Your task to perform on an android device: open wifi settings Image 0: 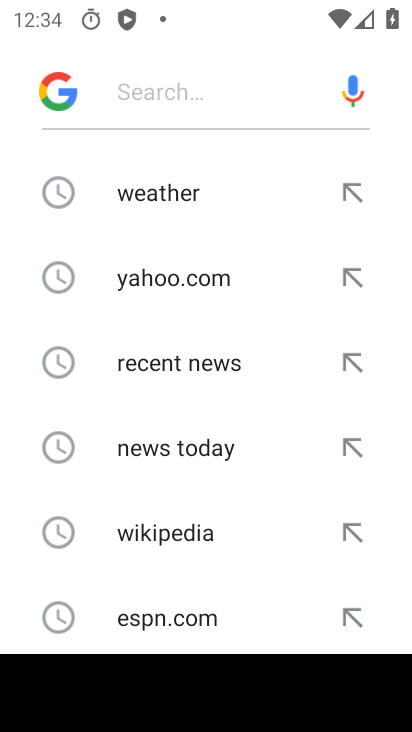
Step 0: press home button
Your task to perform on an android device: open wifi settings Image 1: 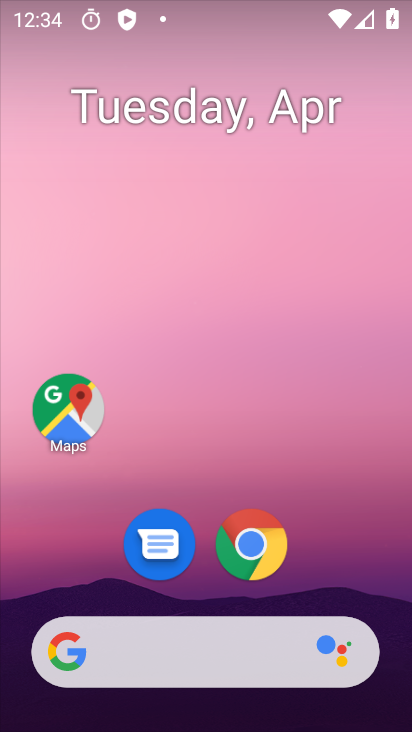
Step 1: drag from (369, 567) to (354, 52)
Your task to perform on an android device: open wifi settings Image 2: 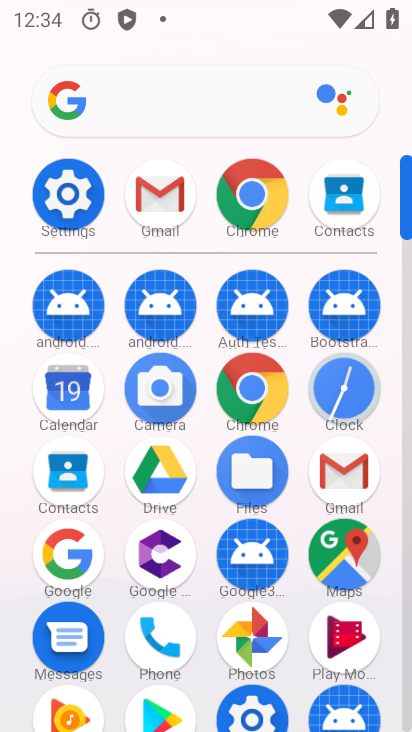
Step 2: click (65, 193)
Your task to perform on an android device: open wifi settings Image 3: 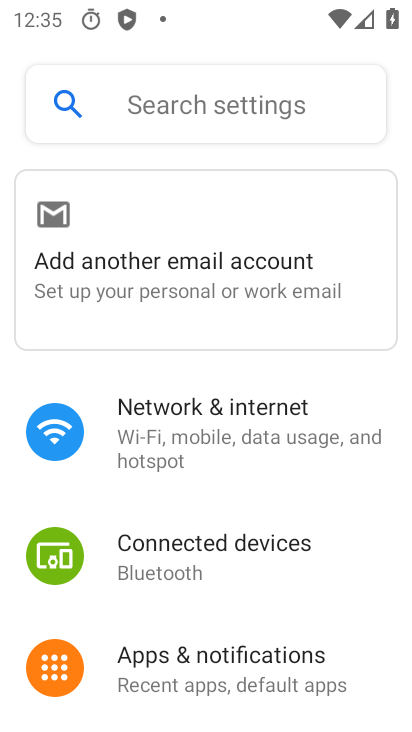
Step 3: click (208, 439)
Your task to perform on an android device: open wifi settings Image 4: 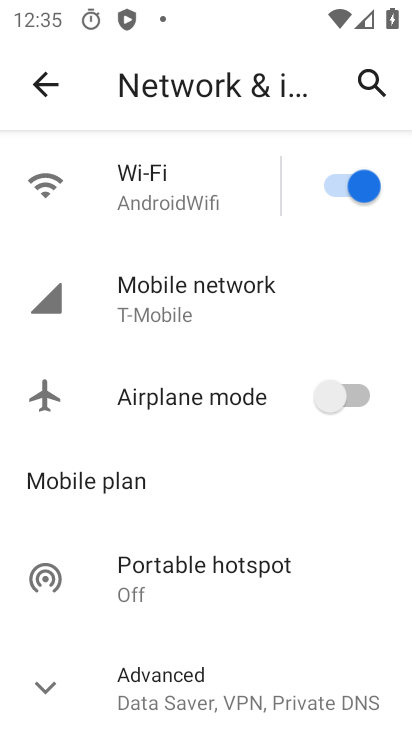
Step 4: click (117, 187)
Your task to perform on an android device: open wifi settings Image 5: 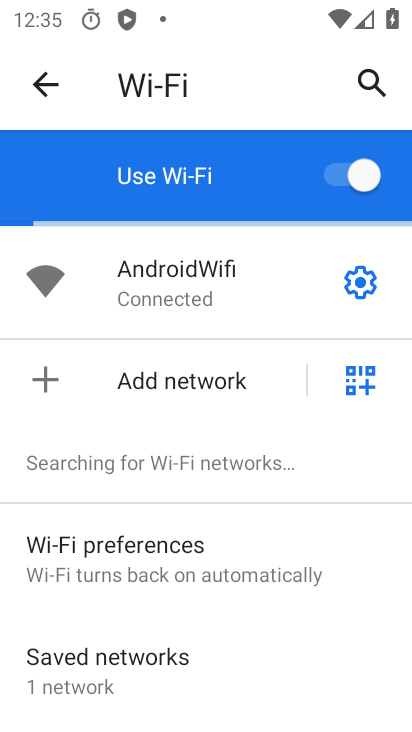
Step 5: task complete